Your task to perform on an android device: When is my next appointment? Image 0: 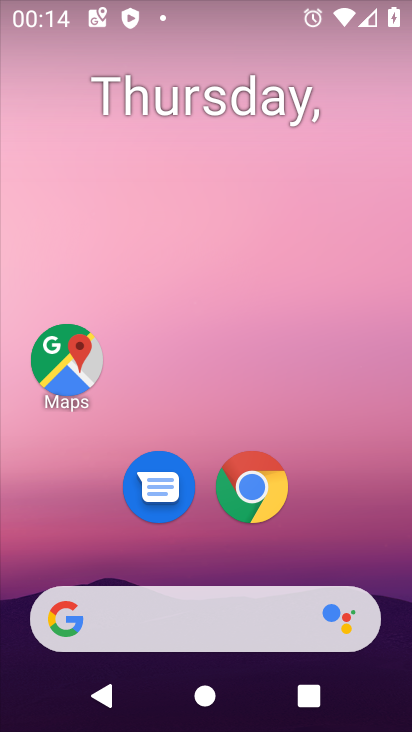
Step 0: drag from (373, 574) to (330, 9)
Your task to perform on an android device: When is my next appointment? Image 1: 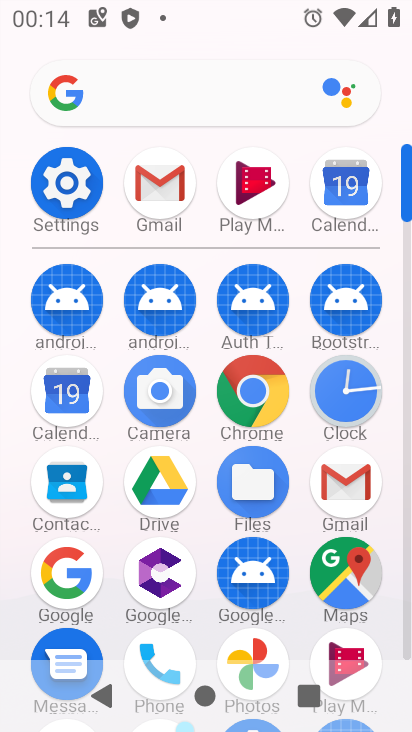
Step 1: click (351, 203)
Your task to perform on an android device: When is my next appointment? Image 2: 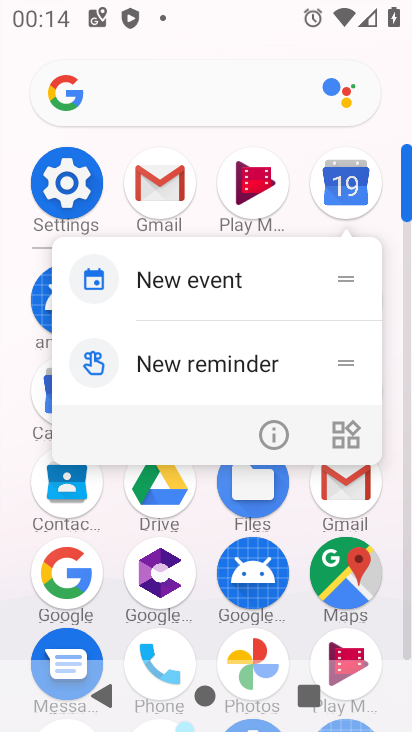
Step 2: click (351, 202)
Your task to perform on an android device: When is my next appointment? Image 3: 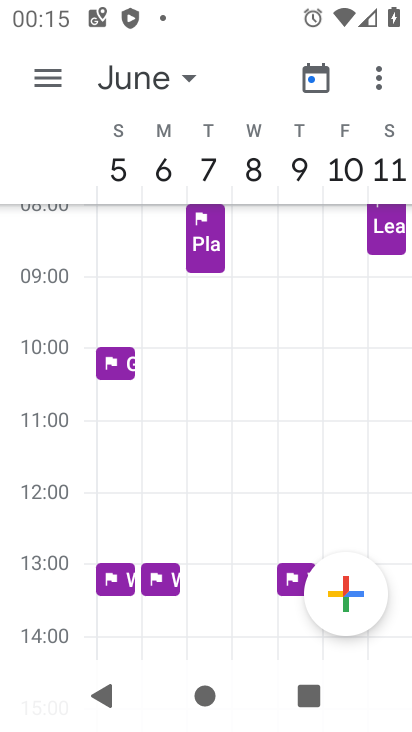
Step 3: click (311, 81)
Your task to perform on an android device: When is my next appointment? Image 4: 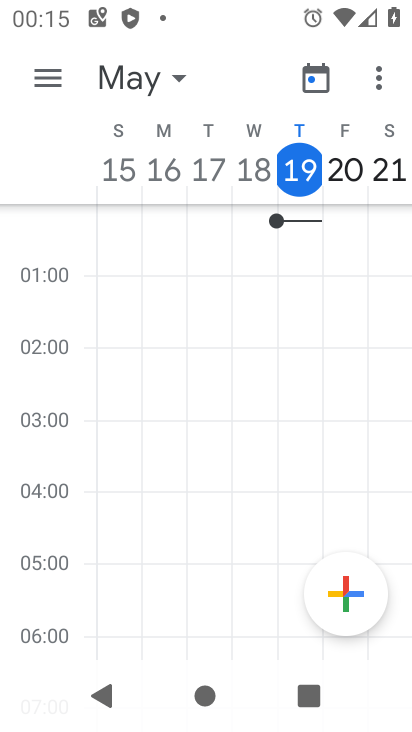
Step 4: click (36, 78)
Your task to perform on an android device: When is my next appointment? Image 5: 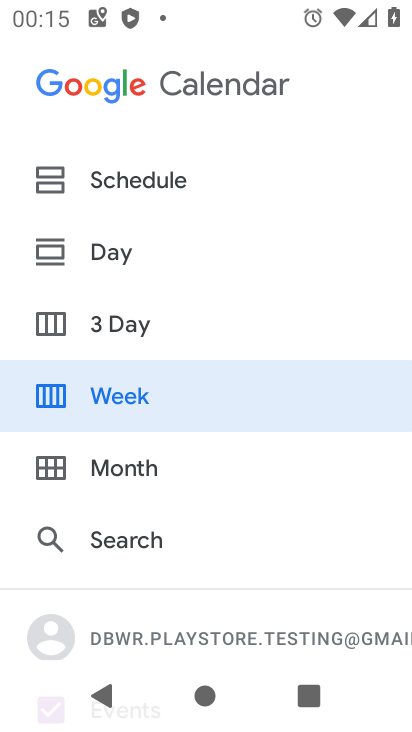
Step 5: click (88, 174)
Your task to perform on an android device: When is my next appointment? Image 6: 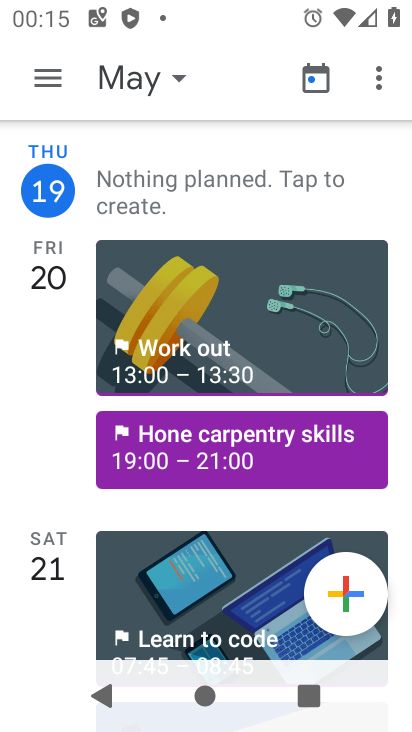
Step 6: click (222, 451)
Your task to perform on an android device: When is my next appointment? Image 7: 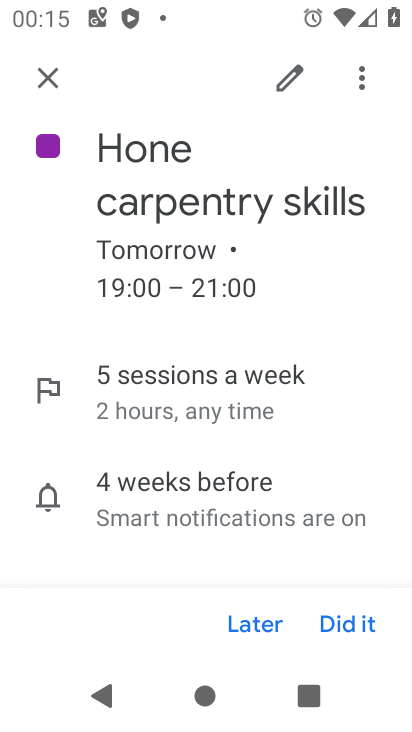
Step 7: task complete